Your task to perform on an android device: Go to CNN.com Image 0: 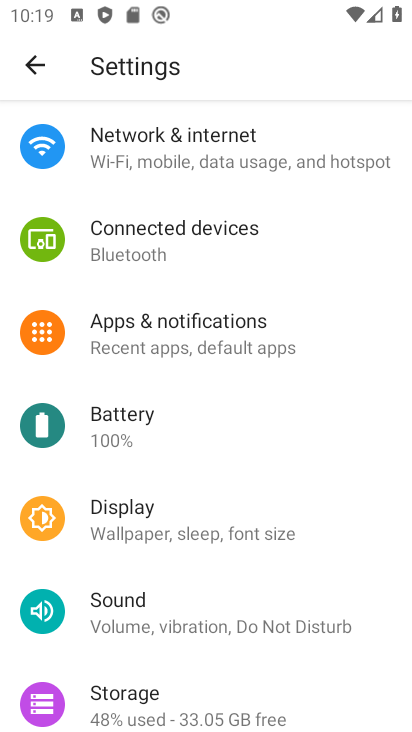
Step 0: press home button
Your task to perform on an android device: Go to CNN.com Image 1: 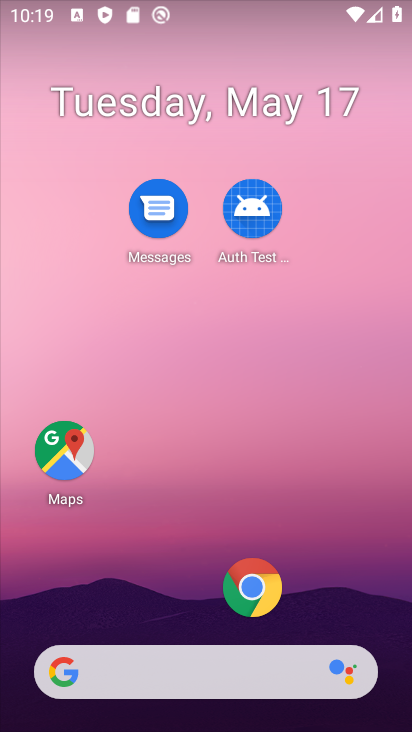
Step 1: drag from (147, 610) to (154, 165)
Your task to perform on an android device: Go to CNN.com Image 2: 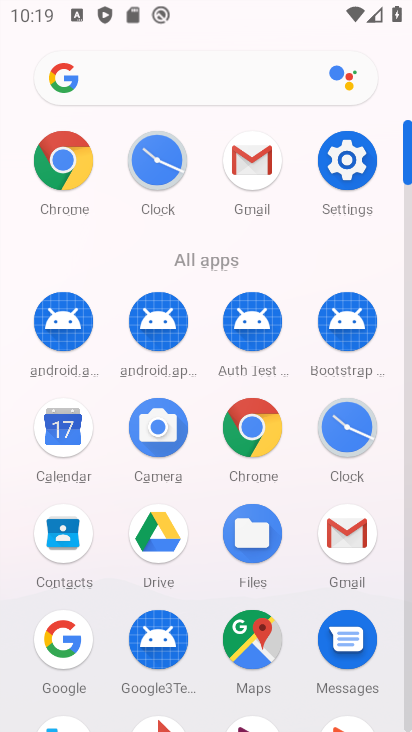
Step 2: click (243, 450)
Your task to perform on an android device: Go to CNN.com Image 3: 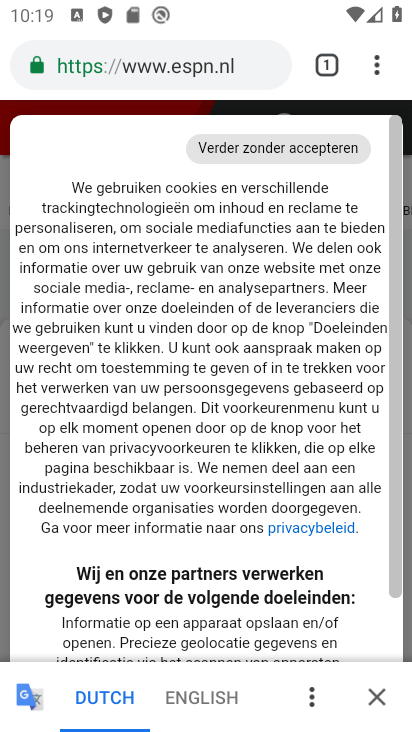
Step 3: click (324, 65)
Your task to perform on an android device: Go to CNN.com Image 4: 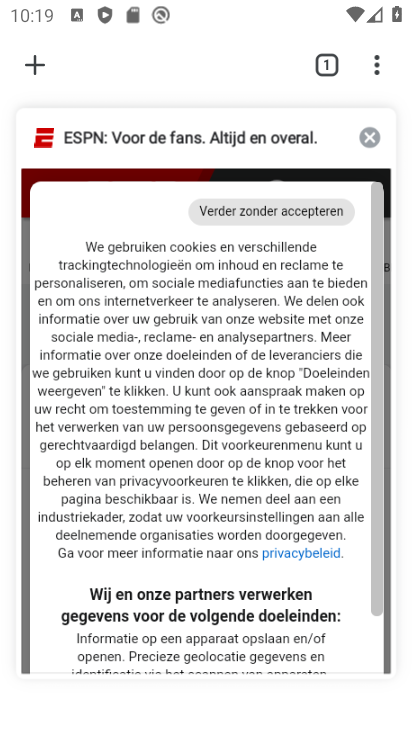
Step 4: click (39, 77)
Your task to perform on an android device: Go to CNN.com Image 5: 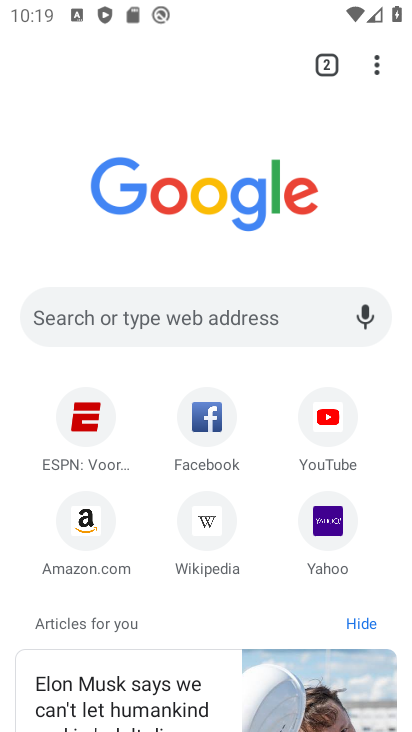
Step 5: click (224, 324)
Your task to perform on an android device: Go to CNN.com Image 6: 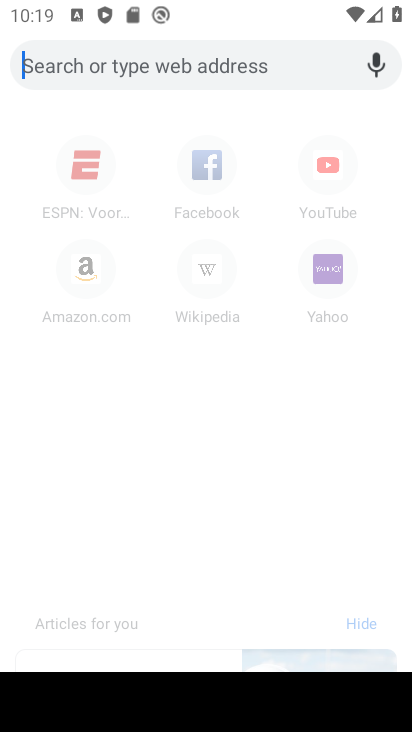
Step 6: type "CNN.com"
Your task to perform on an android device: Go to CNN.com Image 7: 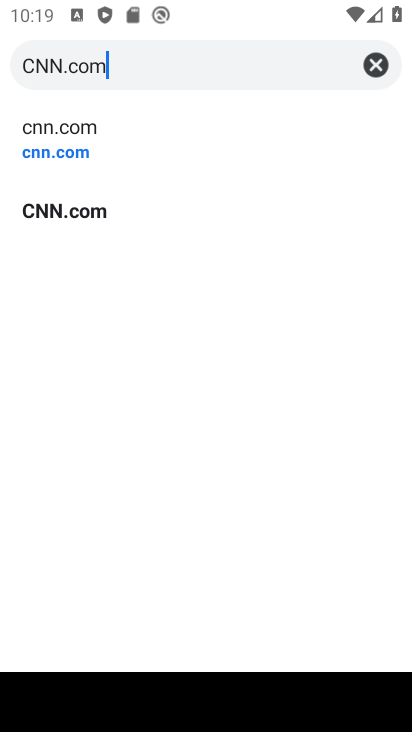
Step 7: type ""
Your task to perform on an android device: Go to CNN.com Image 8: 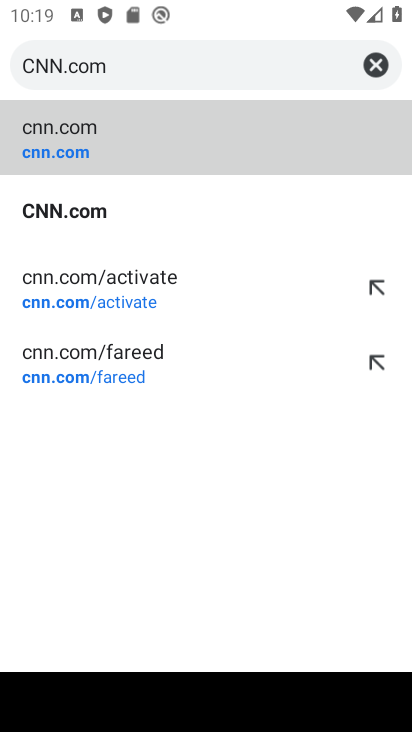
Step 8: click (108, 133)
Your task to perform on an android device: Go to CNN.com Image 9: 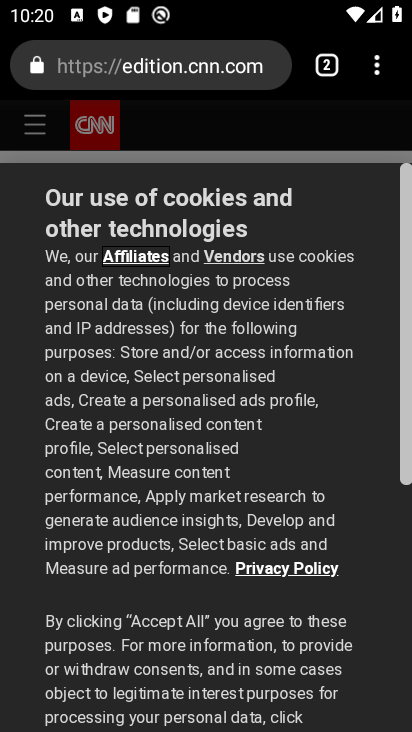
Step 9: task complete